Your task to perform on an android device: Go to accessibility settings Image 0: 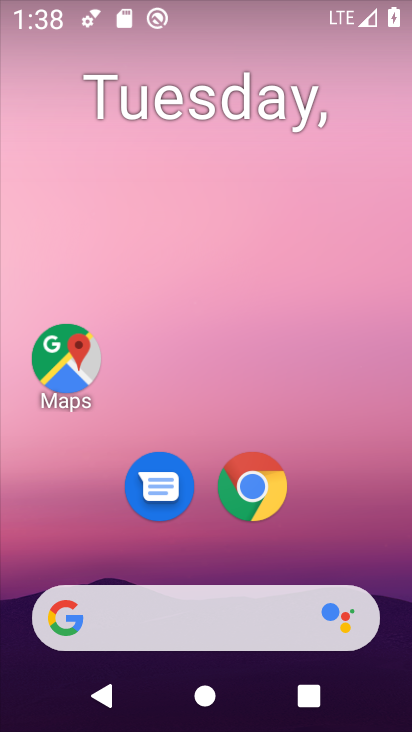
Step 0: press home button
Your task to perform on an android device: Go to accessibility settings Image 1: 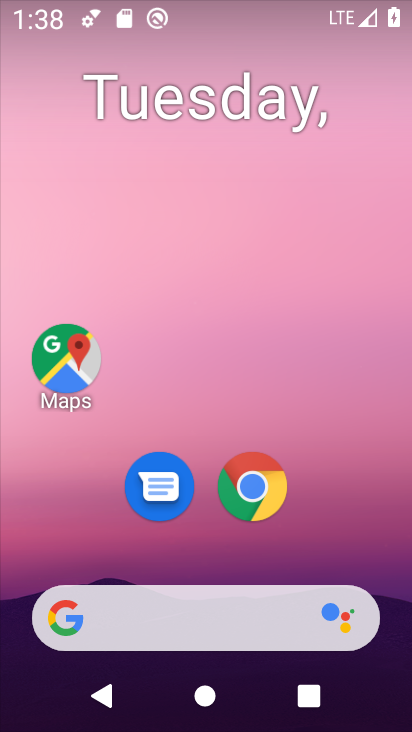
Step 1: drag from (387, 525) to (370, 150)
Your task to perform on an android device: Go to accessibility settings Image 2: 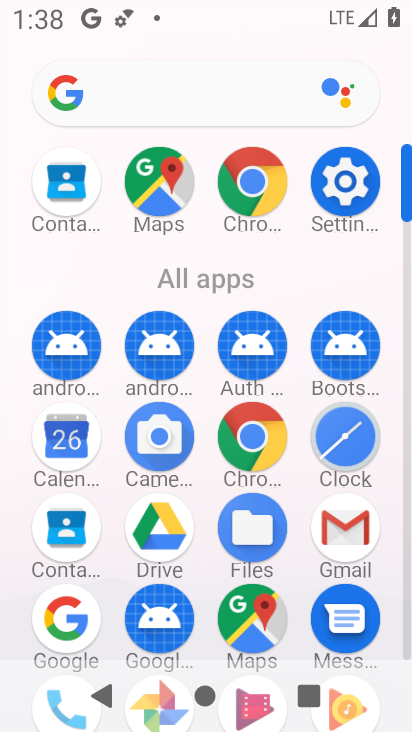
Step 2: click (330, 189)
Your task to perform on an android device: Go to accessibility settings Image 3: 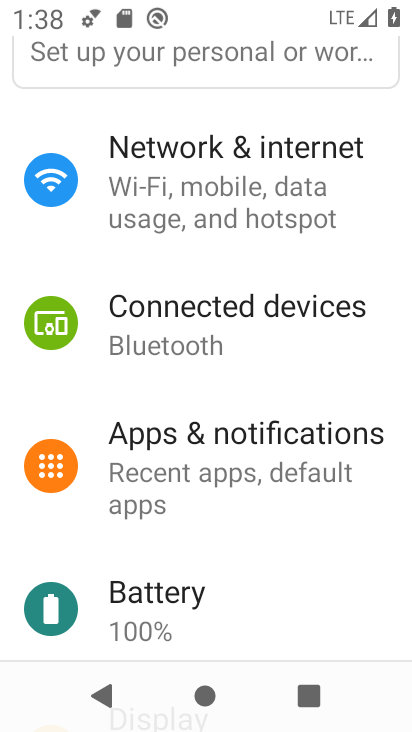
Step 3: drag from (365, 504) to (379, 423)
Your task to perform on an android device: Go to accessibility settings Image 4: 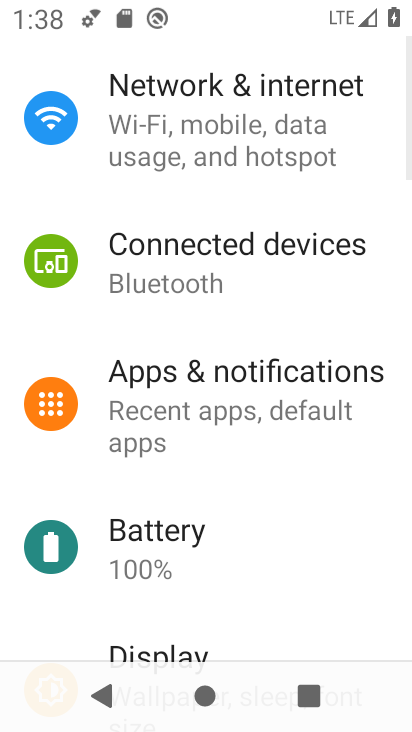
Step 4: drag from (349, 546) to (348, 444)
Your task to perform on an android device: Go to accessibility settings Image 5: 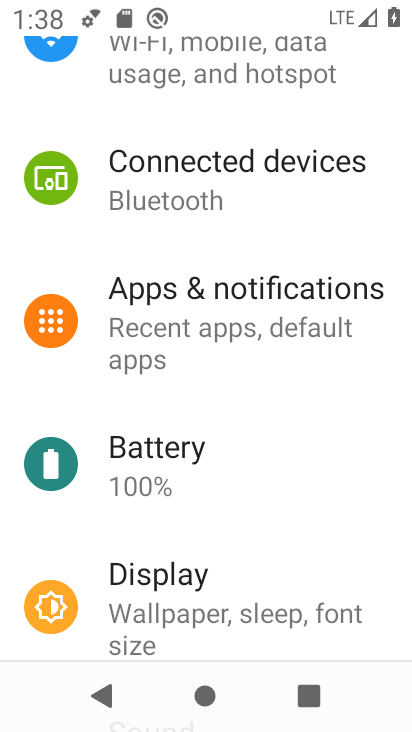
Step 5: drag from (352, 533) to (348, 435)
Your task to perform on an android device: Go to accessibility settings Image 6: 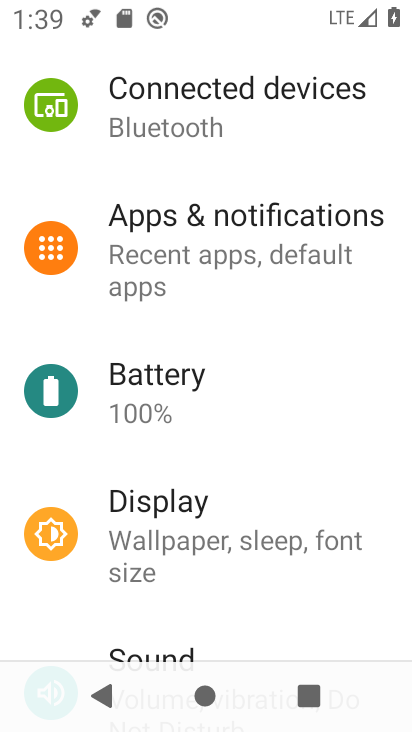
Step 6: drag from (339, 560) to (336, 448)
Your task to perform on an android device: Go to accessibility settings Image 7: 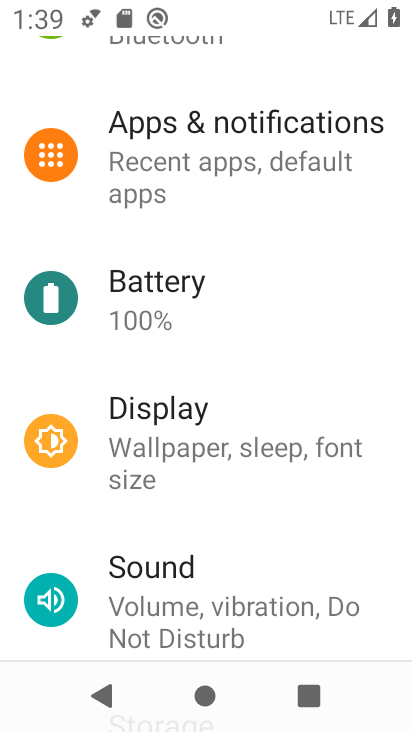
Step 7: drag from (316, 542) to (320, 449)
Your task to perform on an android device: Go to accessibility settings Image 8: 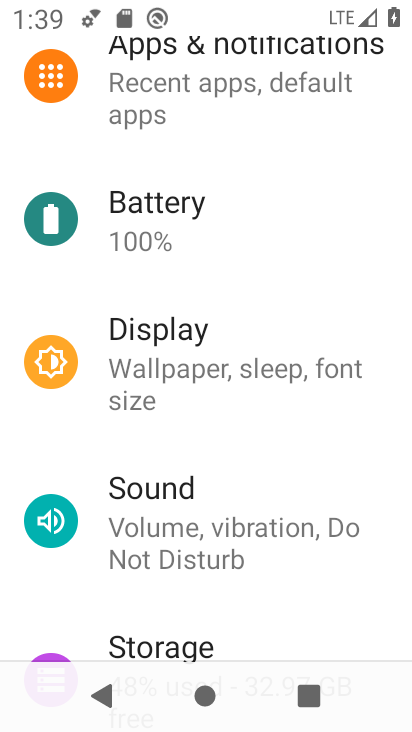
Step 8: drag from (321, 560) to (329, 453)
Your task to perform on an android device: Go to accessibility settings Image 9: 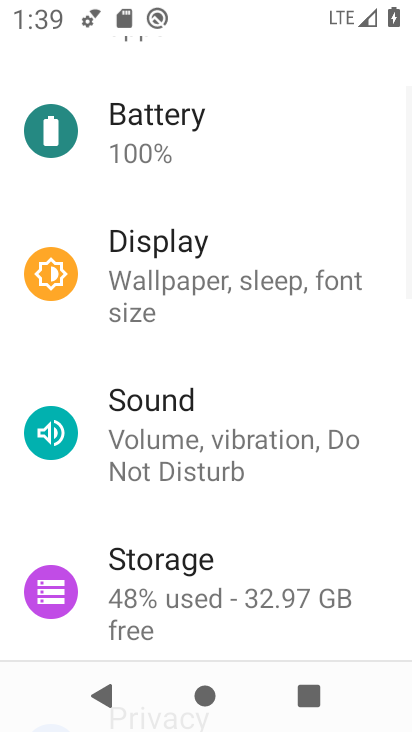
Step 9: drag from (335, 570) to (344, 472)
Your task to perform on an android device: Go to accessibility settings Image 10: 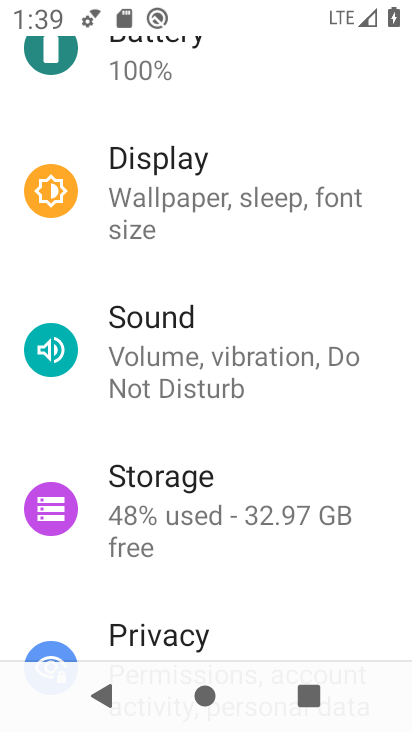
Step 10: drag from (327, 541) to (345, 412)
Your task to perform on an android device: Go to accessibility settings Image 11: 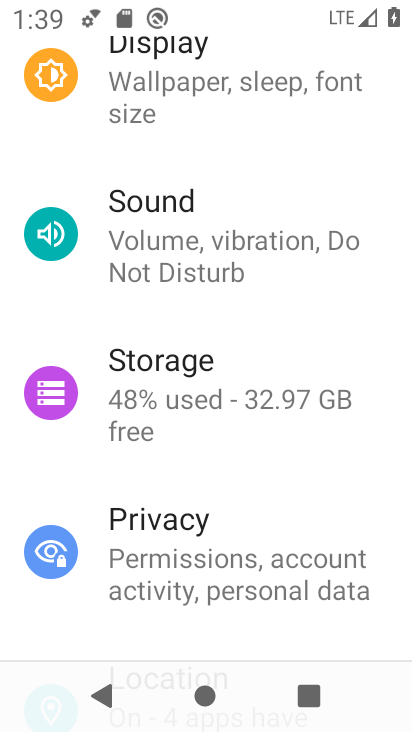
Step 11: drag from (330, 525) to (348, 416)
Your task to perform on an android device: Go to accessibility settings Image 12: 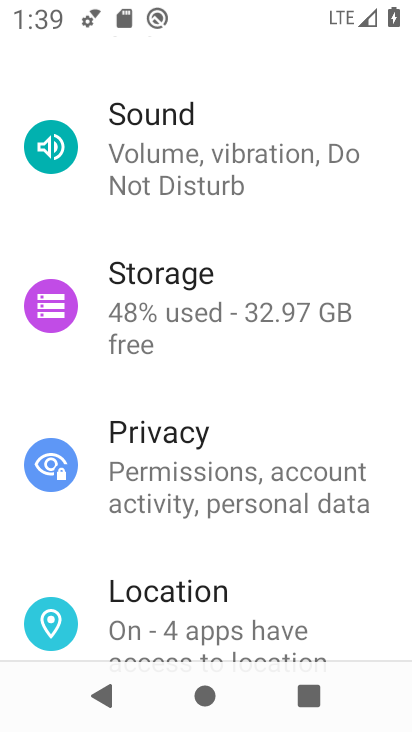
Step 12: drag from (343, 601) to (354, 470)
Your task to perform on an android device: Go to accessibility settings Image 13: 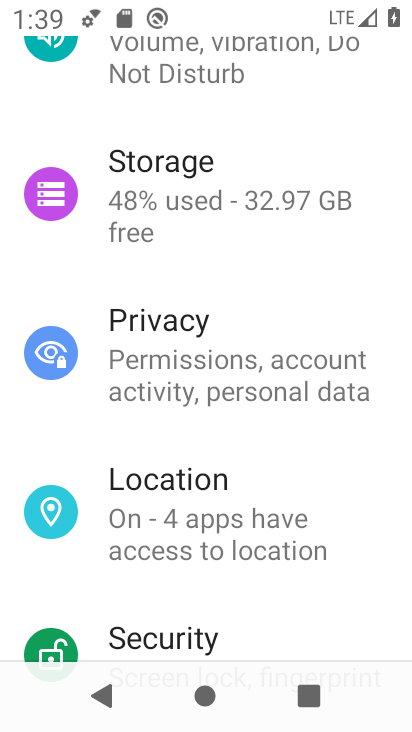
Step 13: drag from (329, 579) to (343, 438)
Your task to perform on an android device: Go to accessibility settings Image 14: 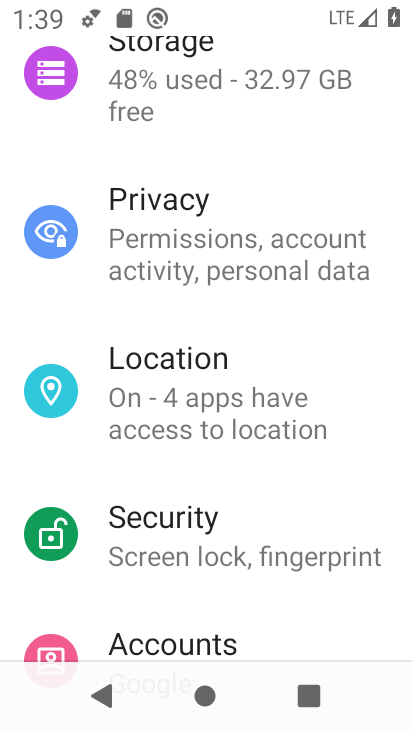
Step 14: drag from (331, 604) to (337, 477)
Your task to perform on an android device: Go to accessibility settings Image 15: 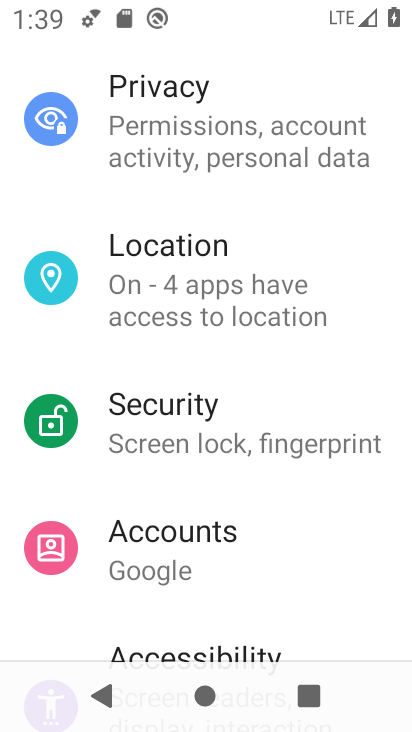
Step 15: drag from (310, 590) to (313, 499)
Your task to perform on an android device: Go to accessibility settings Image 16: 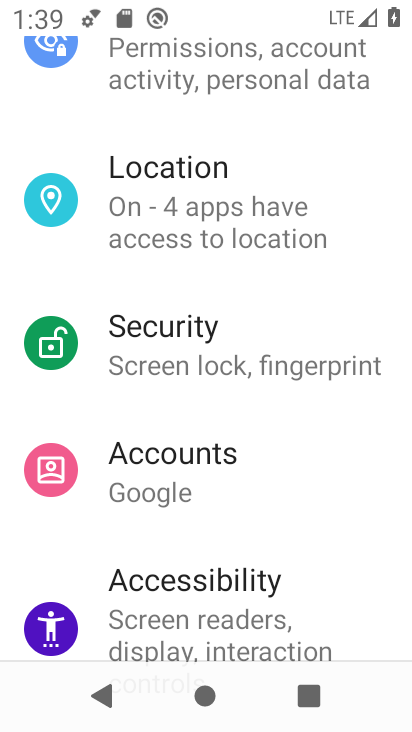
Step 16: drag from (313, 592) to (313, 440)
Your task to perform on an android device: Go to accessibility settings Image 17: 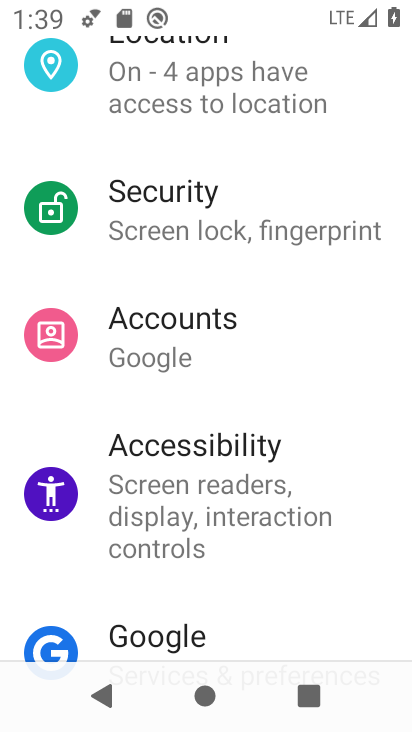
Step 17: click (241, 518)
Your task to perform on an android device: Go to accessibility settings Image 18: 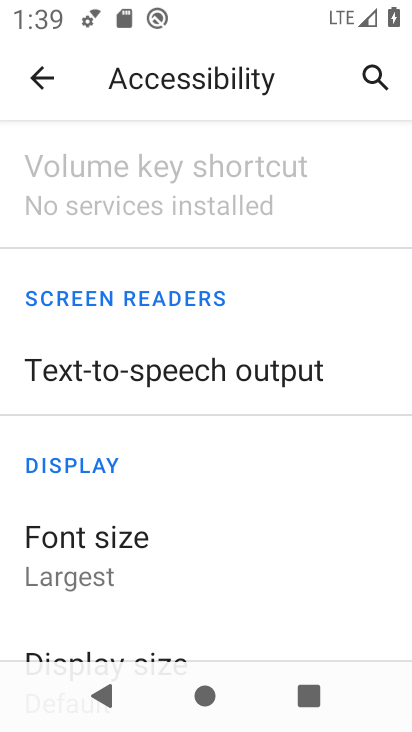
Step 18: task complete